Your task to perform on an android device: Go to Yahoo.com Image 0: 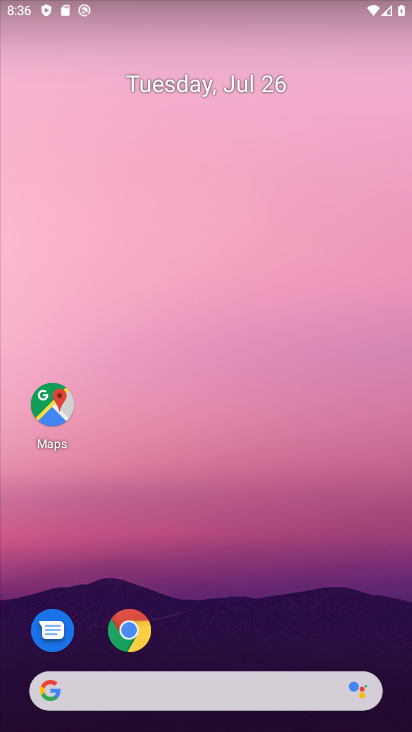
Step 0: drag from (162, 611) to (235, 1)
Your task to perform on an android device: Go to Yahoo.com Image 1: 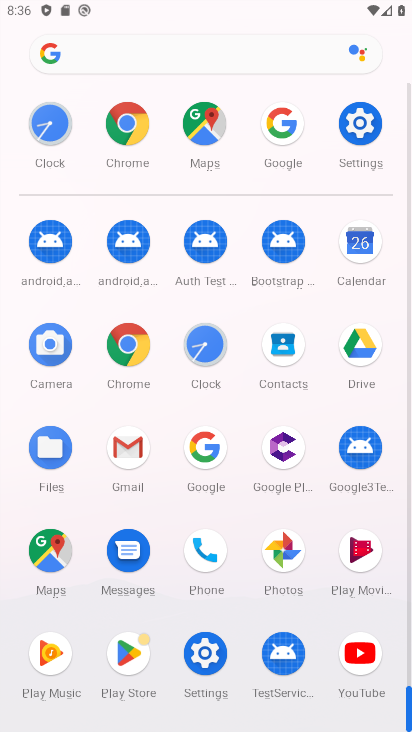
Step 1: click (133, 349)
Your task to perform on an android device: Go to Yahoo.com Image 2: 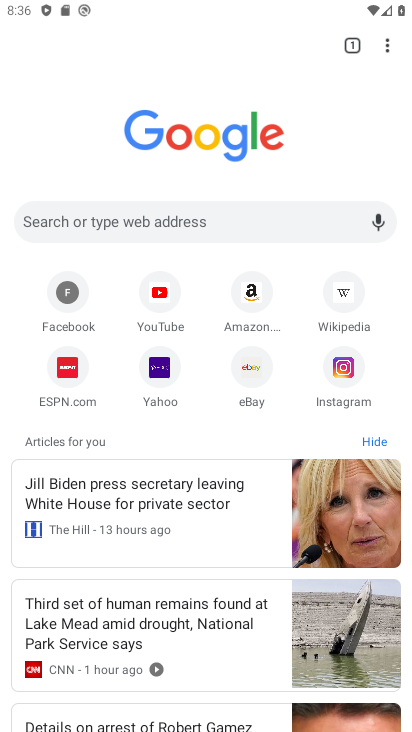
Step 2: click (156, 360)
Your task to perform on an android device: Go to Yahoo.com Image 3: 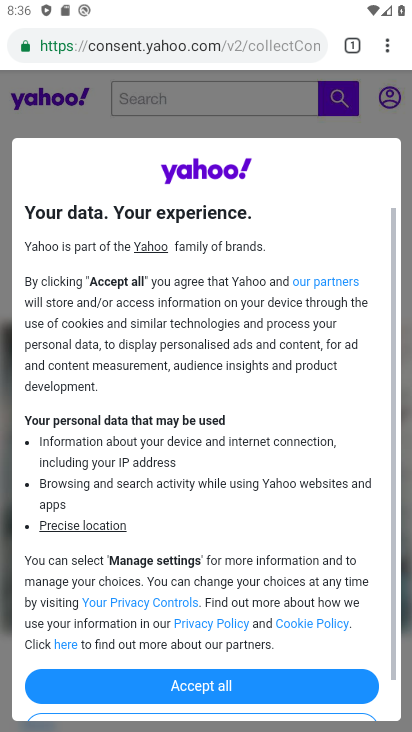
Step 3: task complete